Your task to perform on an android device: Open privacy settings Image 0: 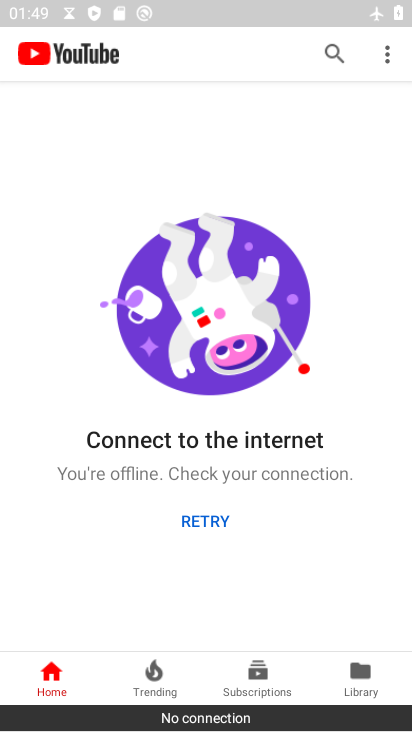
Step 0: press home button
Your task to perform on an android device: Open privacy settings Image 1: 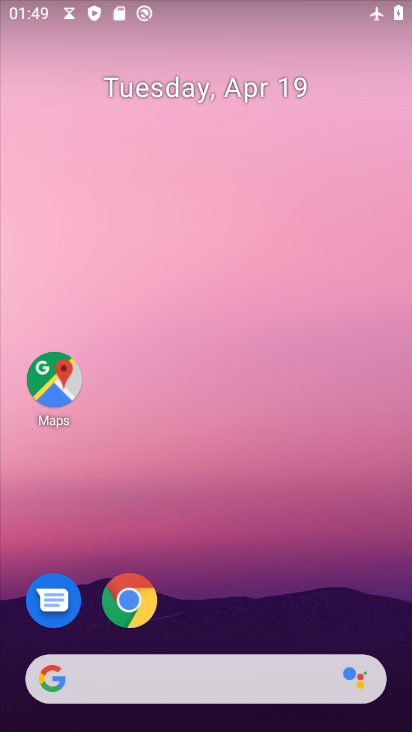
Step 1: drag from (193, 639) to (133, 33)
Your task to perform on an android device: Open privacy settings Image 2: 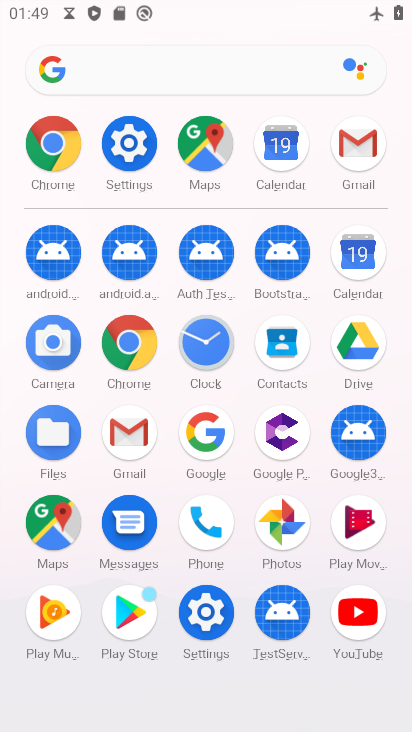
Step 2: click (127, 173)
Your task to perform on an android device: Open privacy settings Image 3: 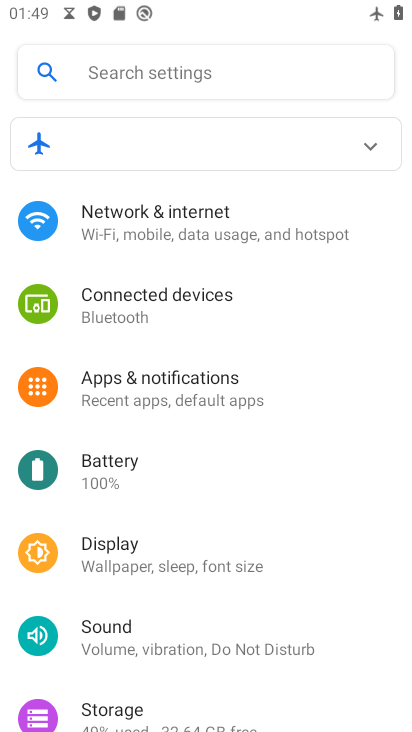
Step 3: drag from (175, 598) to (89, 141)
Your task to perform on an android device: Open privacy settings Image 4: 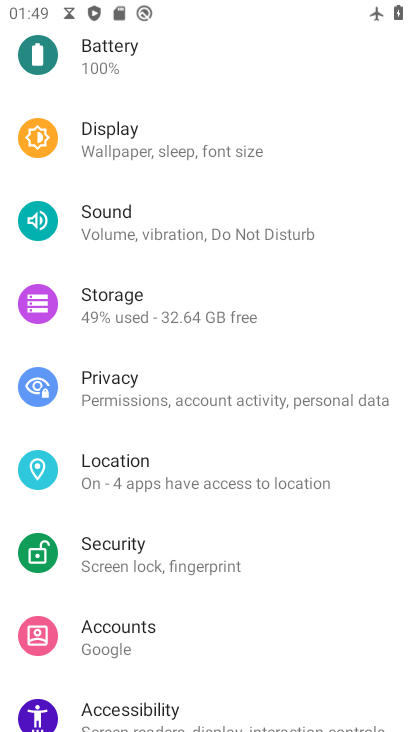
Step 4: click (118, 394)
Your task to perform on an android device: Open privacy settings Image 5: 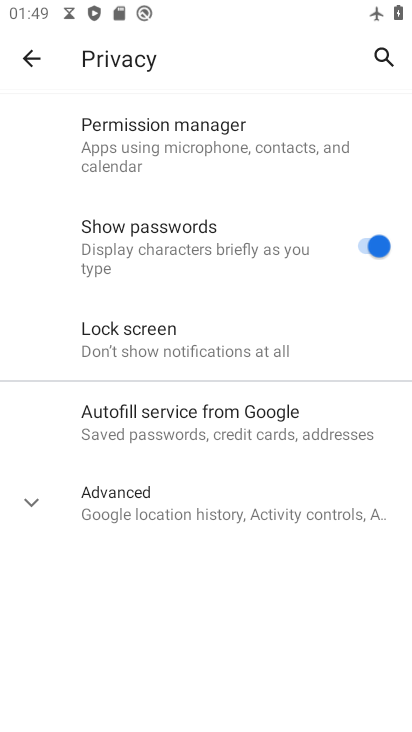
Step 5: click (110, 504)
Your task to perform on an android device: Open privacy settings Image 6: 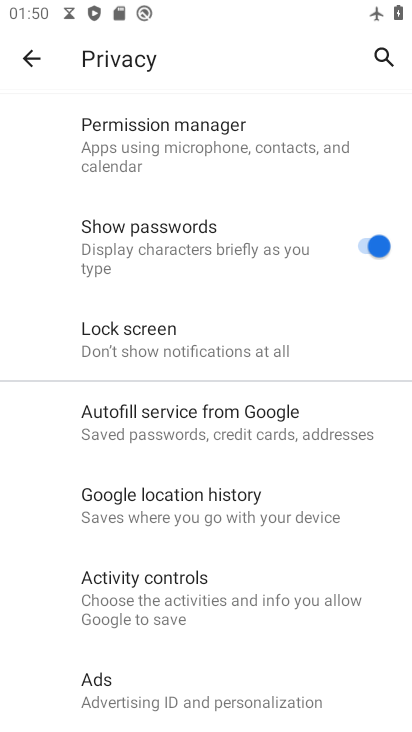
Step 6: task complete